Your task to perform on an android device: open sync settings in chrome Image 0: 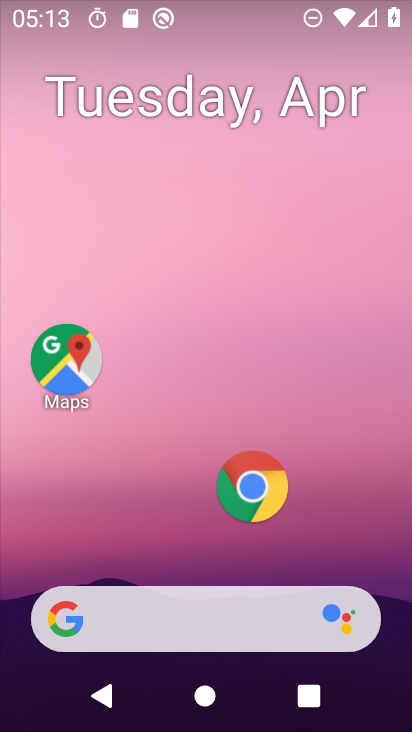
Step 0: click (240, 497)
Your task to perform on an android device: open sync settings in chrome Image 1: 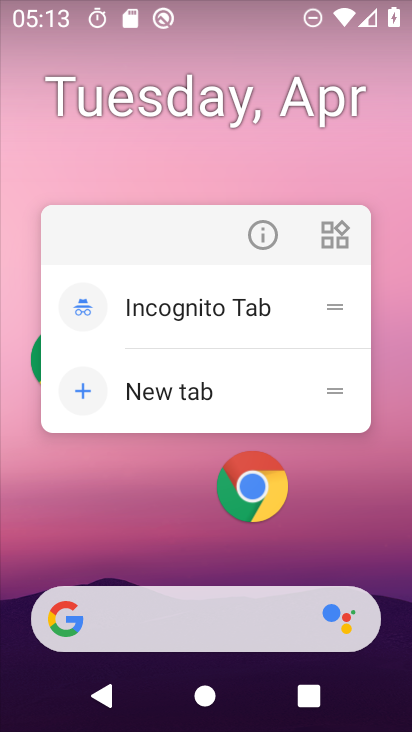
Step 1: click (255, 477)
Your task to perform on an android device: open sync settings in chrome Image 2: 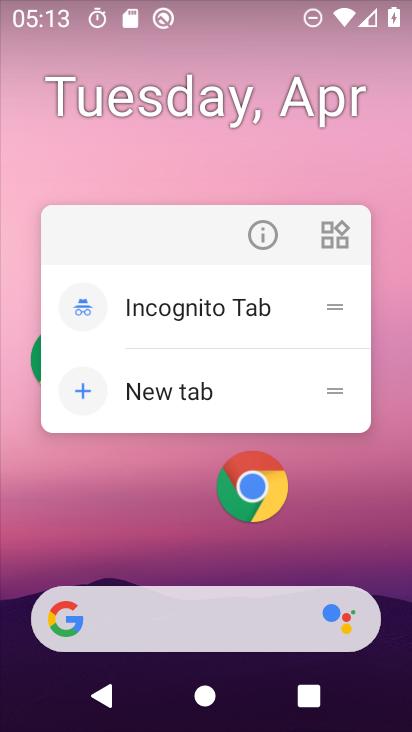
Step 2: click (237, 510)
Your task to perform on an android device: open sync settings in chrome Image 3: 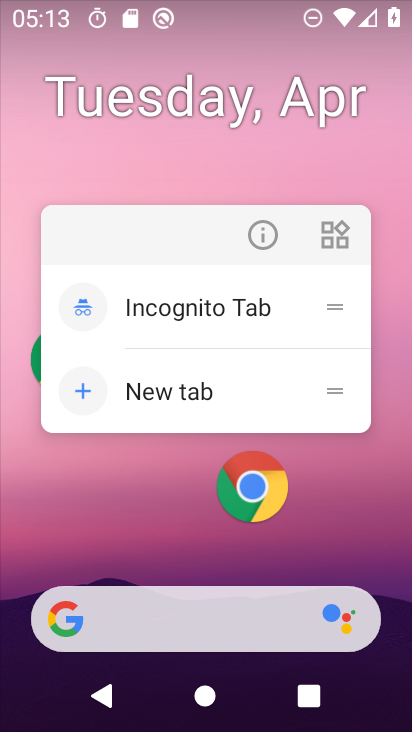
Step 3: click (259, 474)
Your task to perform on an android device: open sync settings in chrome Image 4: 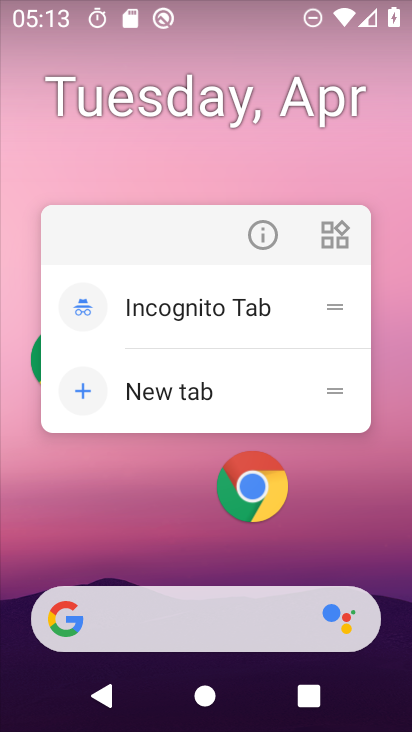
Step 4: click (251, 479)
Your task to perform on an android device: open sync settings in chrome Image 5: 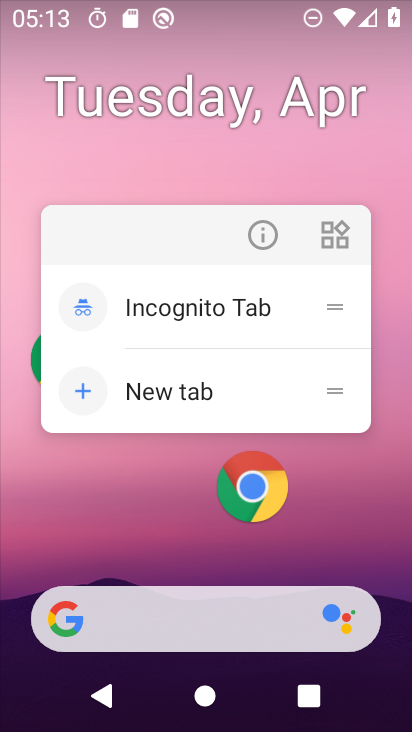
Step 5: click (251, 484)
Your task to perform on an android device: open sync settings in chrome Image 6: 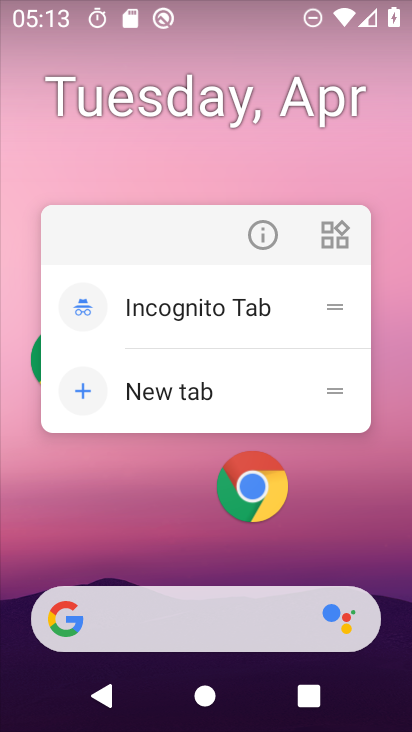
Step 6: click (257, 471)
Your task to perform on an android device: open sync settings in chrome Image 7: 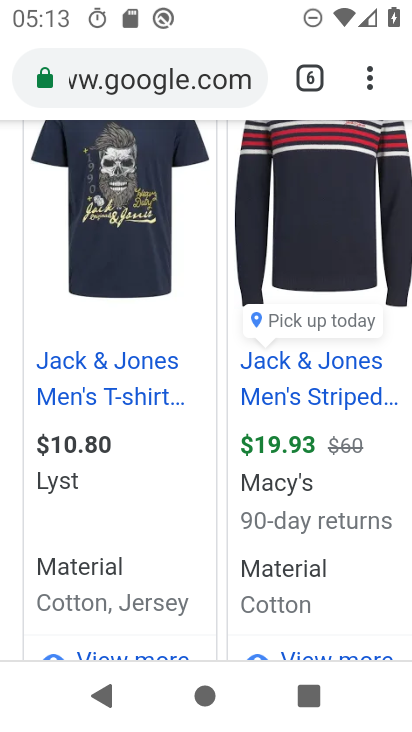
Step 7: drag from (367, 70) to (125, 515)
Your task to perform on an android device: open sync settings in chrome Image 8: 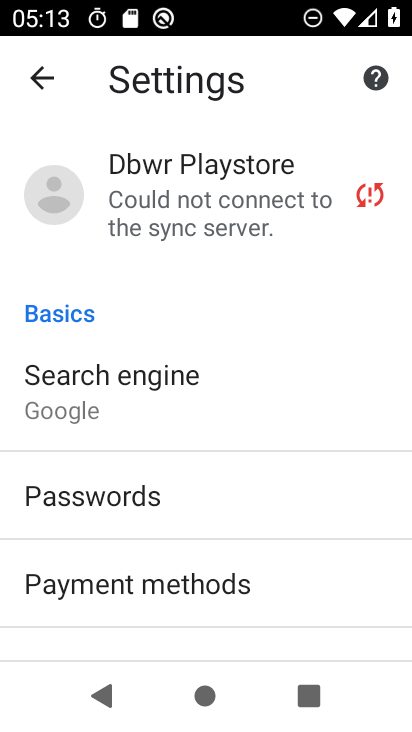
Step 8: click (200, 182)
Your task to perform on an android device: open sync settings in chrome Image 9: 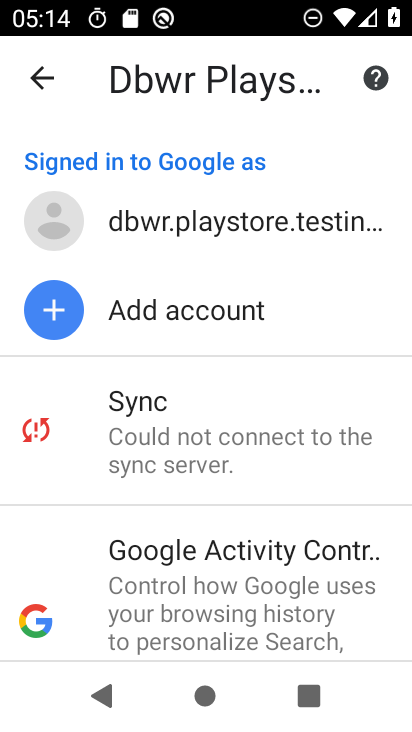
Step 9: click (210, 455)
Your task to perform on an android device: open sync settings in chrome Image 10: 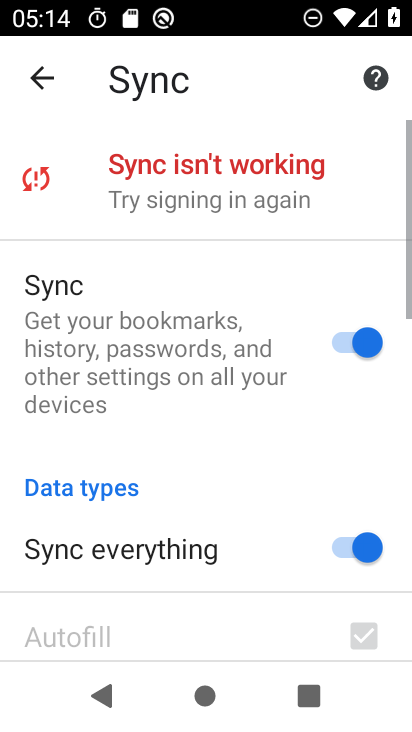
Step 10: task complete